Your task to perform on an android device: turn off notifications settings in the gmail app Image 0: 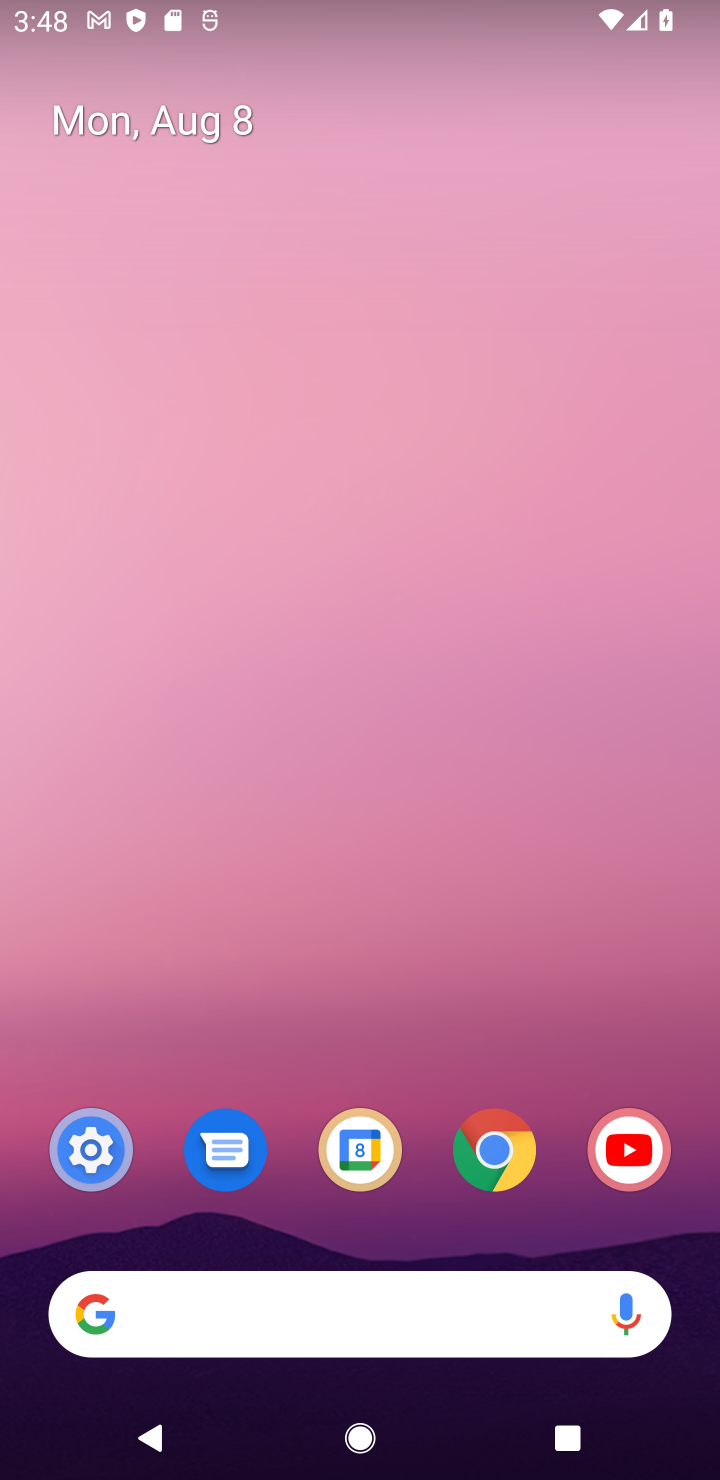
Step 0: click (117, 1183)
Your task to perform on an android device: turn off notifications settings in the gmail app Image 1: 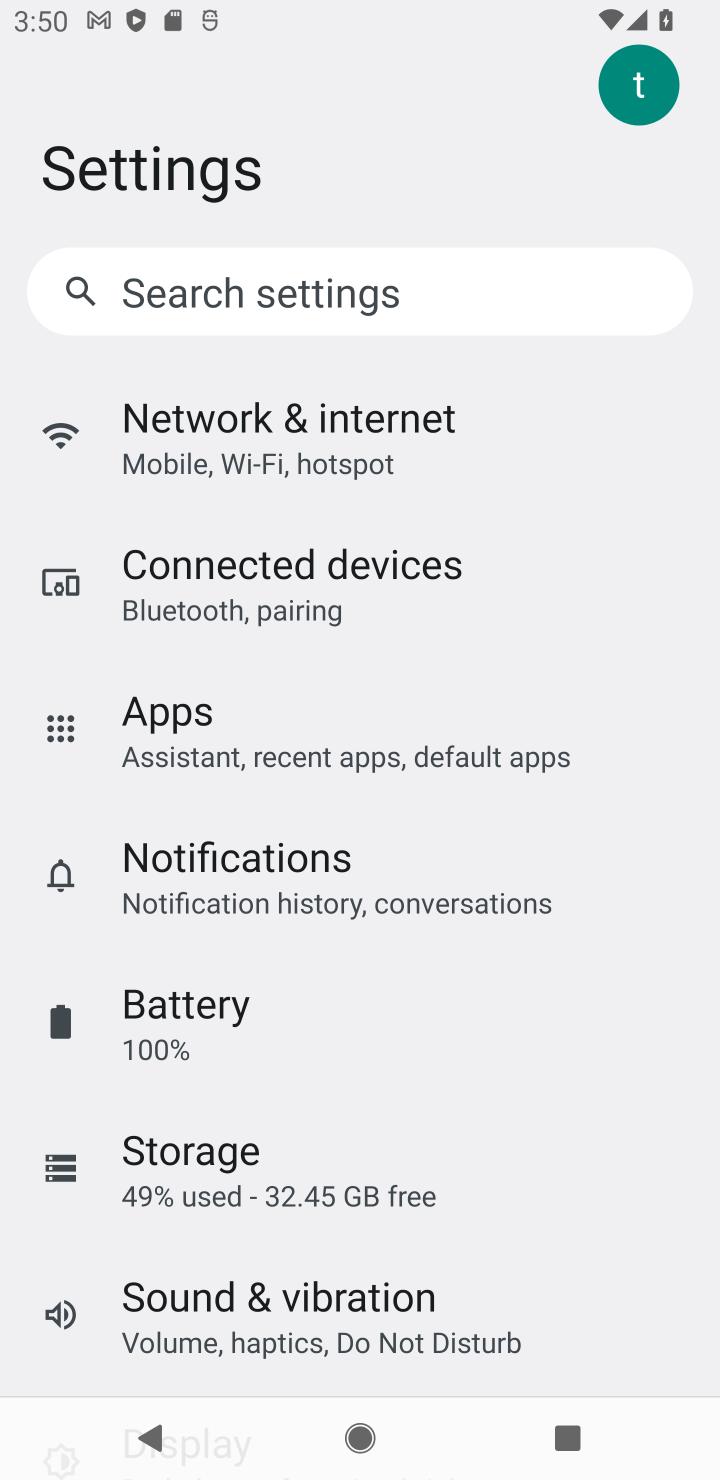
Step 1: task complete